Your task to perform on an android device: Find coffee shops on Maps Image 0: 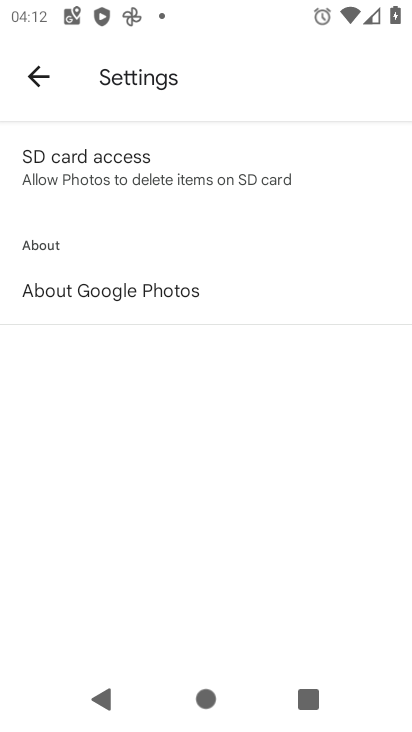
Step 0: press home button
Your task to perform on an android device: Find coffee shops on Maps Image 1: 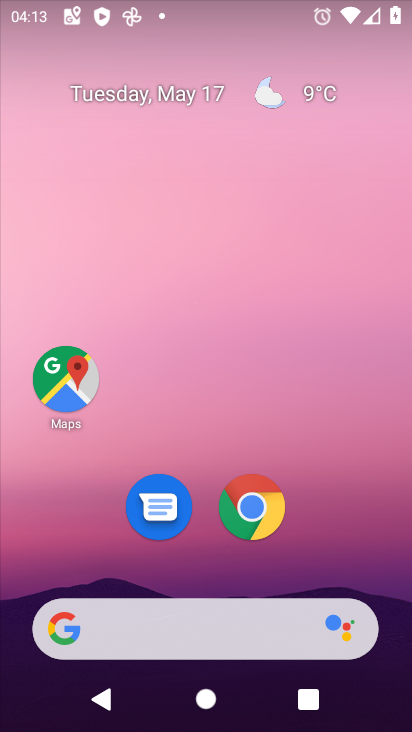
Step 1: click (77, 384)
Your task to perform on an android device: Find coffee shops on Maps Image 2: 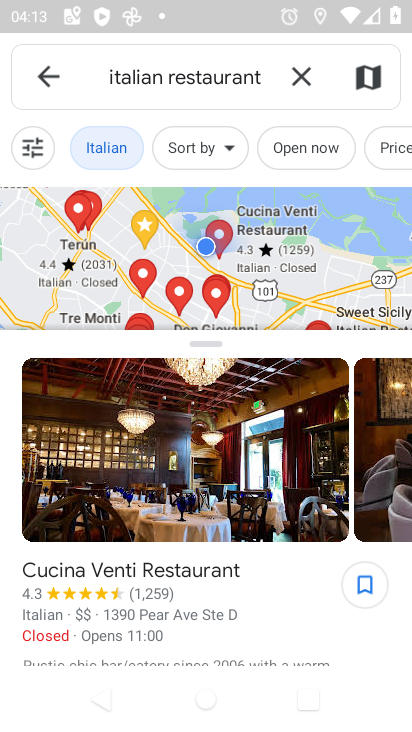
Step 2: click (297, 80)
Your task to perform on an android device: Find coffee shops on Maps Image 3: 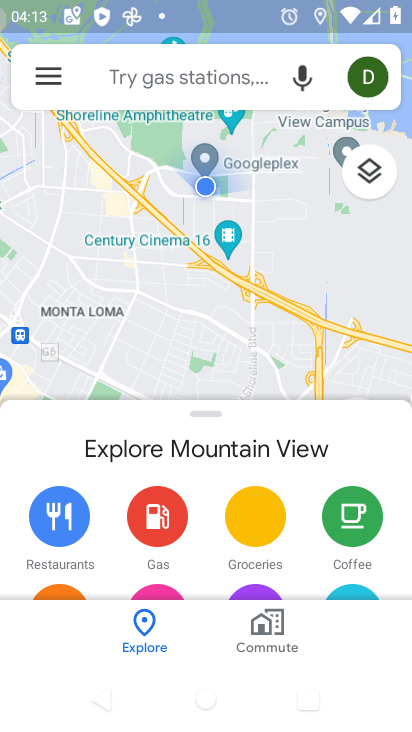
Step 3: click (140, 81)
Your task to perform on an android device: Find coffee shops on Maps Image 4: 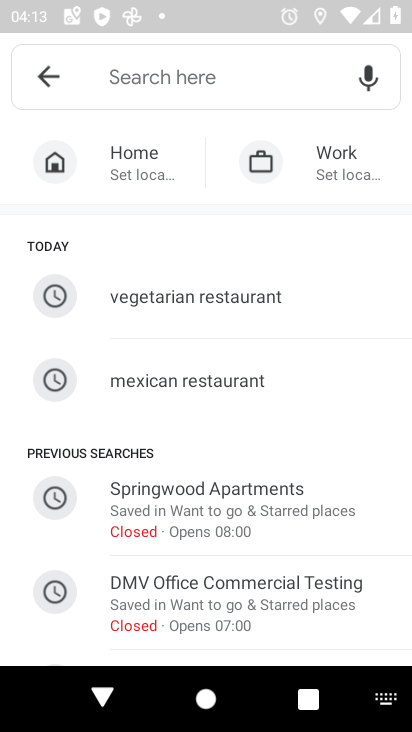
Step 4: type "coffee shops"
Your task to perform on an android device: Find coffee shops on Maps Image 5: 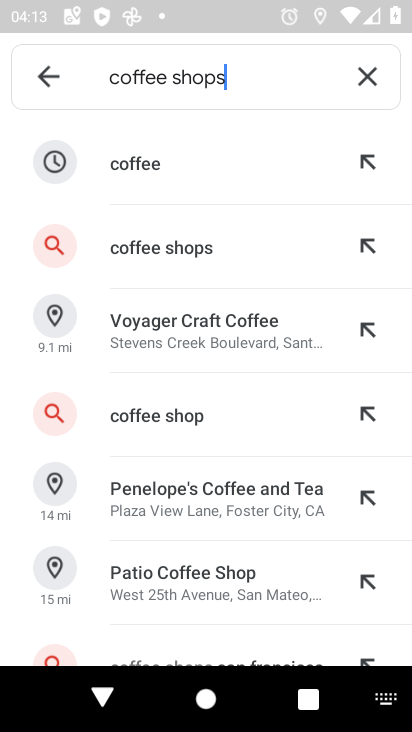
Step 5: click (212, 244)
Your task to perform on an android device: Find coffee shops on Maps Image 6: 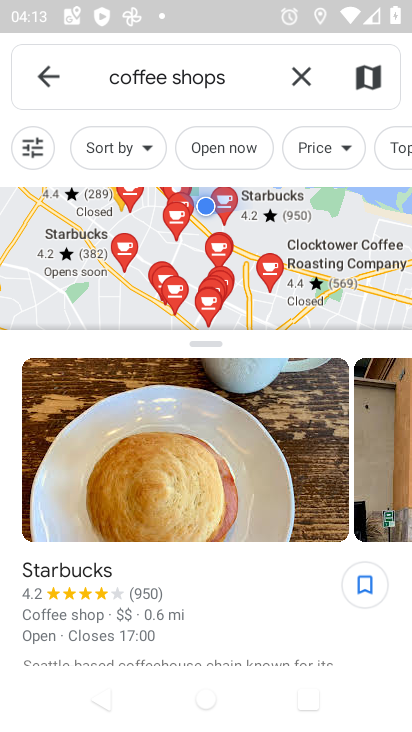
Step 6: task complete